Your task to perform on an android device: Add "usb-c" to the cart on target.com, then select checkout. Image 0: 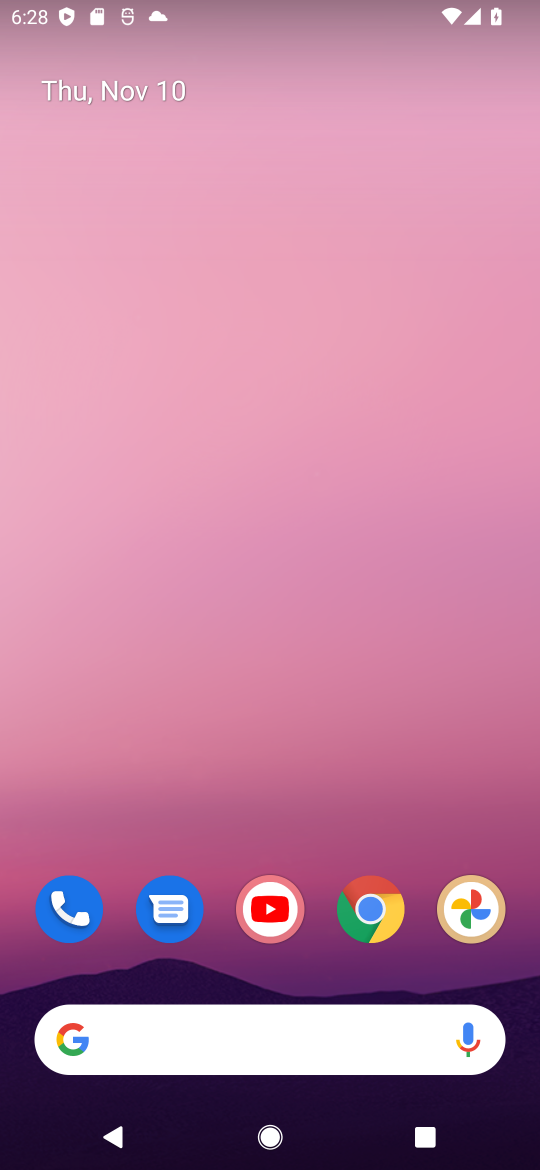
Step 0: drag from (250, 984) to (84, 14)
Your task to perform on an android device: Add "usb-c" to the cart on target.com, then select checkout. Image 1: 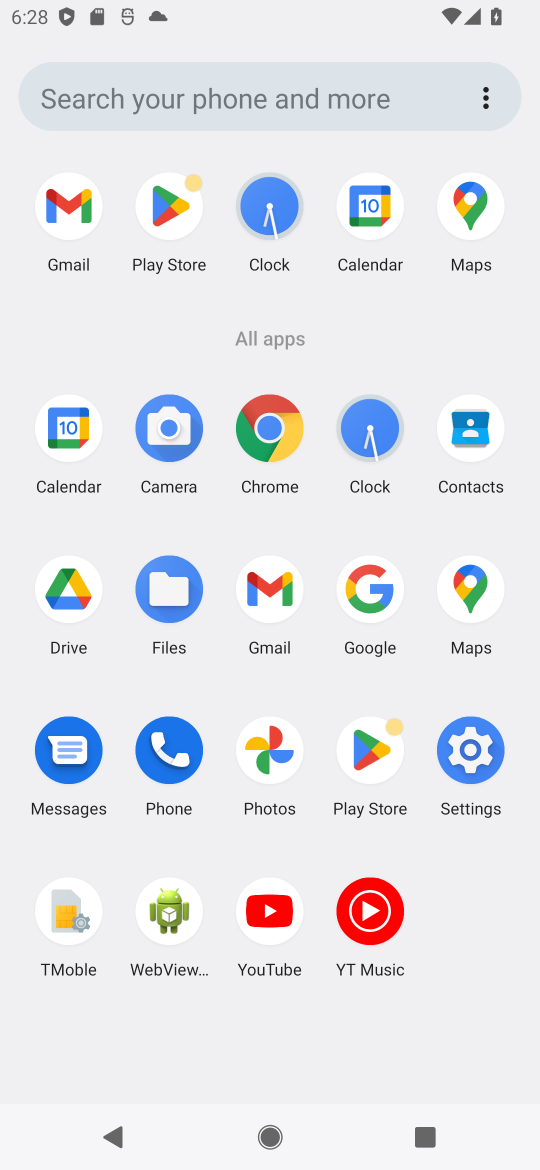
Step 1: click (385, 585)
Your task to perform on an android device: Add "usb-c" to the cart on target.com, then select checkout. Image 2: 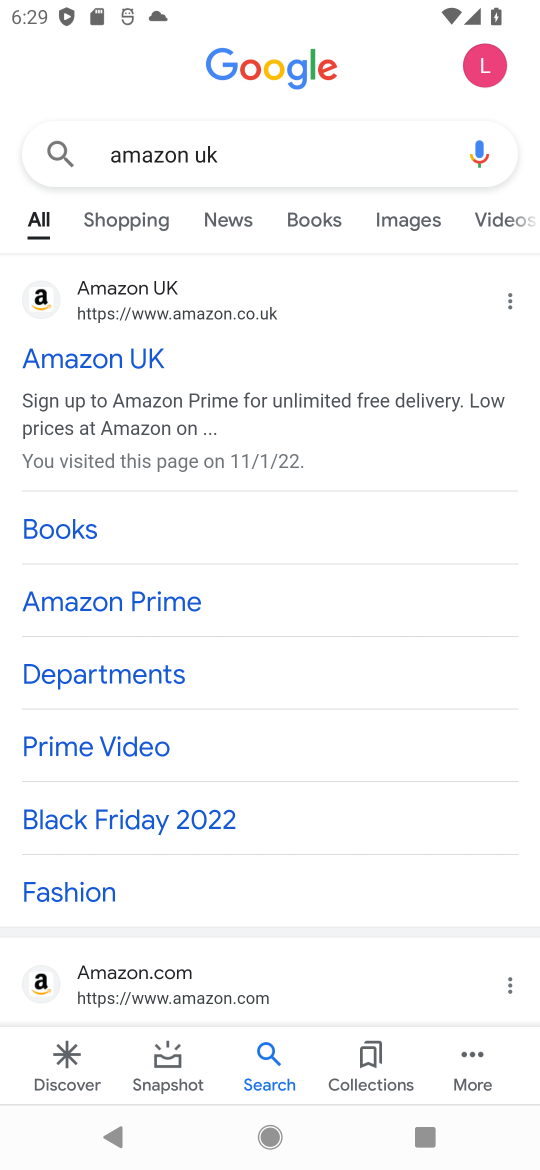
Step 2: click (318, 166)
Your task to perform on an android device: Add "usb-c" to the cart on target.com, then select checkout. Image 3: 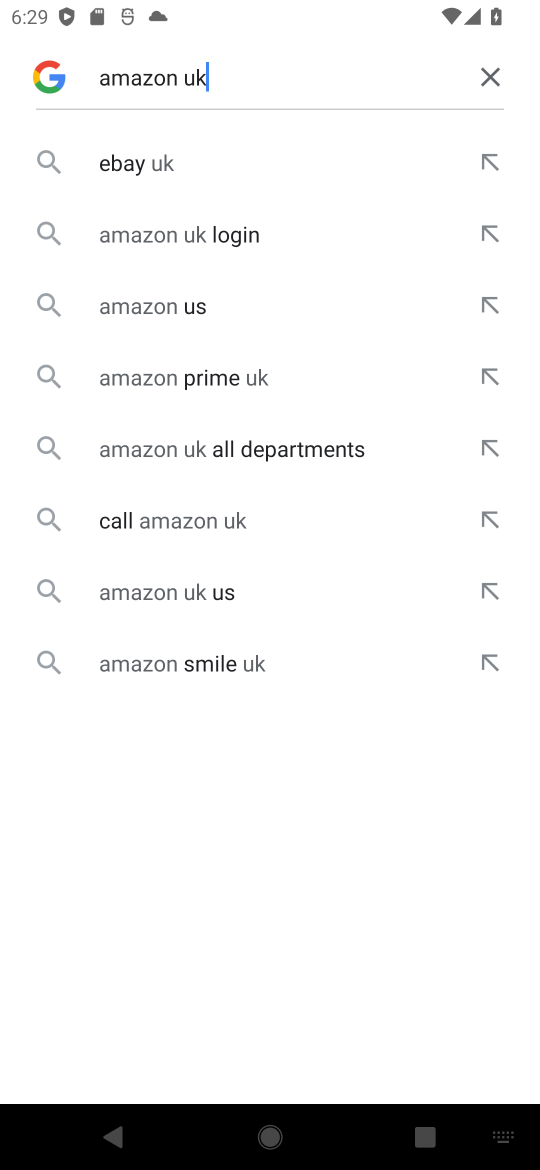
Step 3: click (483, 63)
Your task to perform on an android device: Add "usb-c" to the cart on target.com, then select checkout. Image 4: 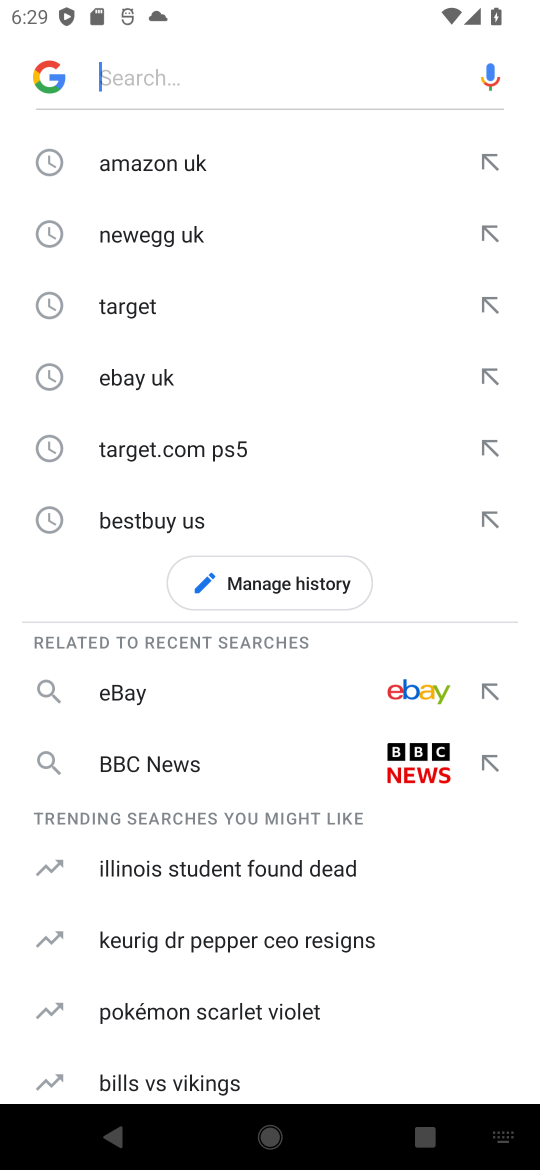
Step 4: click (216, 78)
Your task to perform on an android device: Add "usb-c" to the cart on target.com, then select checkout. Image 5: 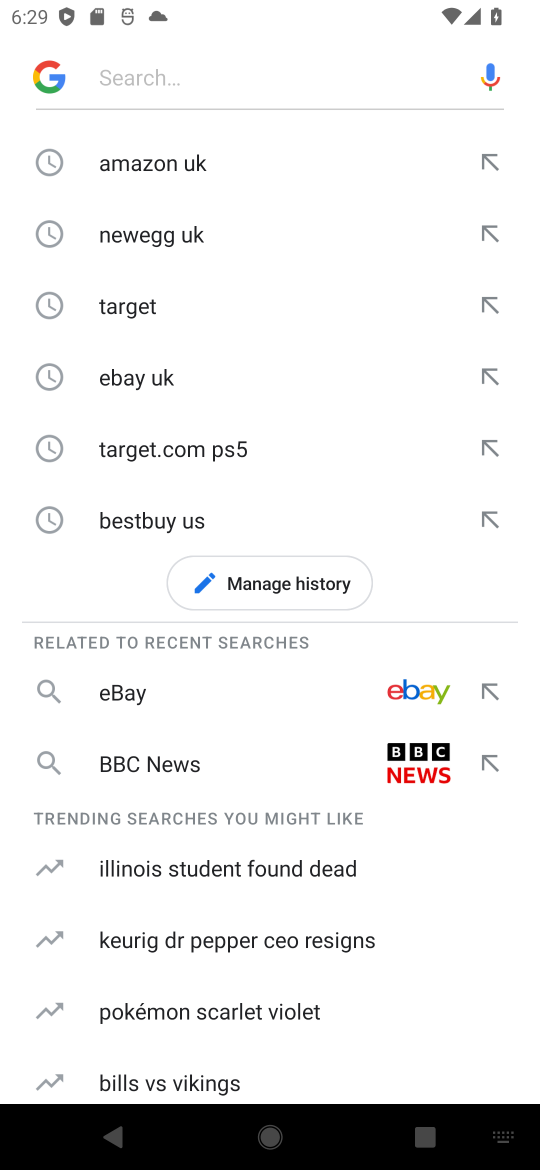
Step 5: type "target "
Your task to perform on an android device: Add "usb-c" to the cart on target.com, then select checkout. Image 6: 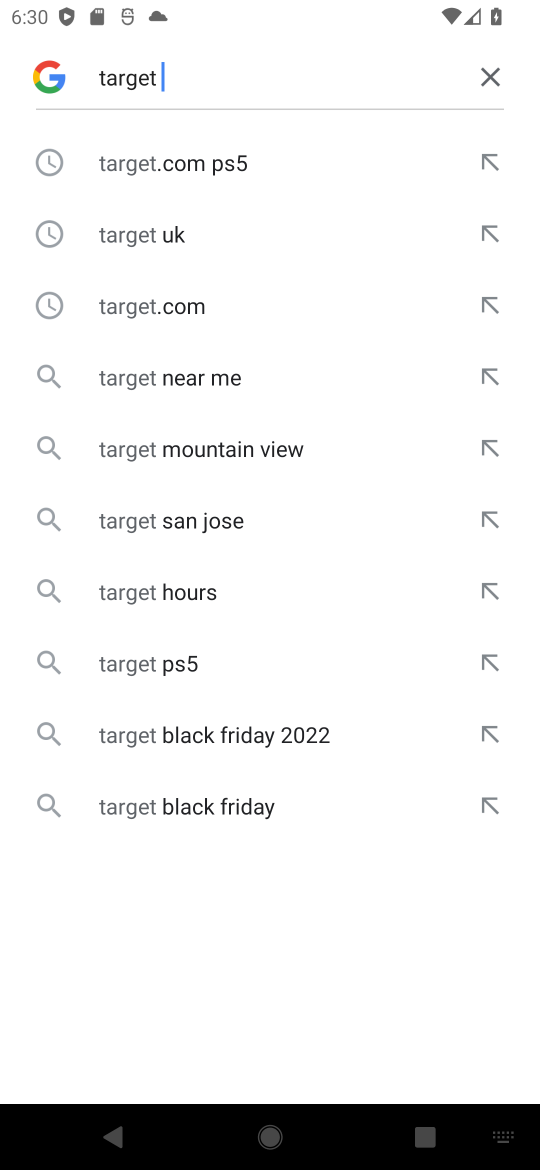
Step 6: click (146, 227)
Your task to perform on an android device: Add "usb-c" to the cart on target.com, then select checkout. Image 7: 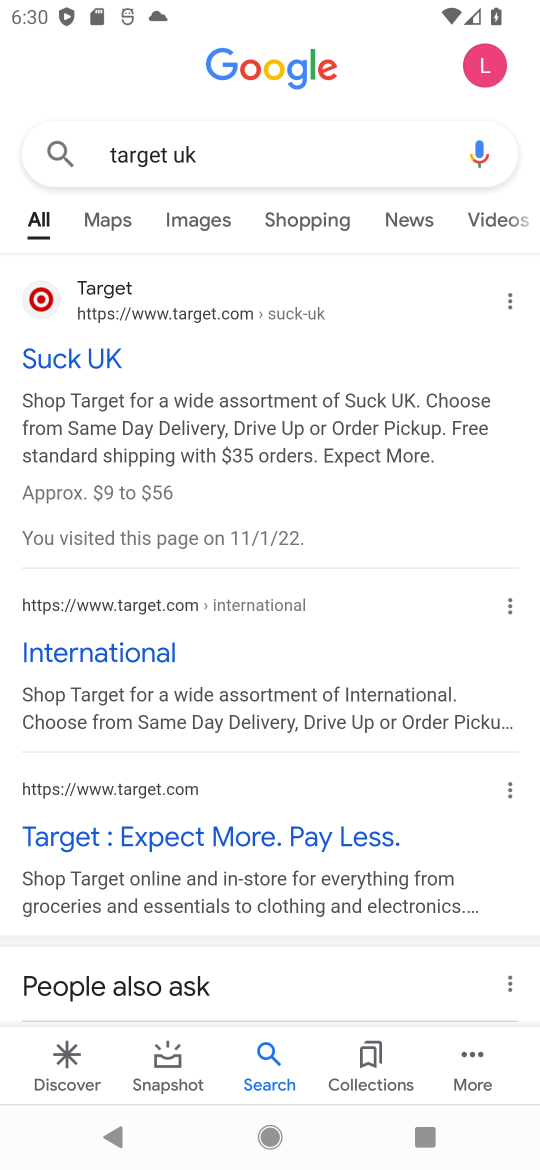
Step 7: click (39, 287)
Your task to perform on an android device: Add "usb-c" to the cart on target.com, then select checkout. Image 8: 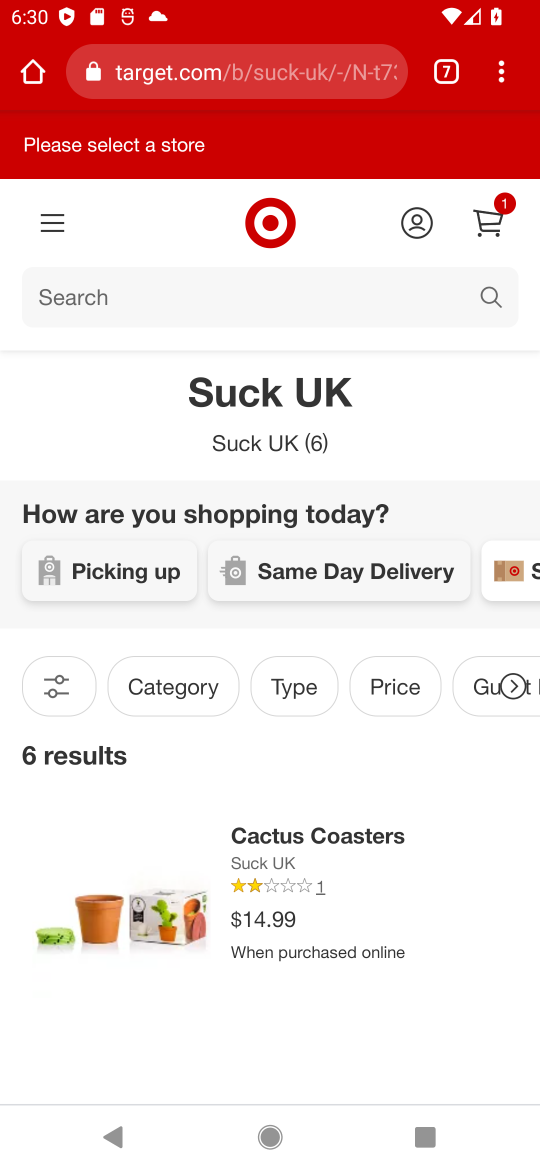
Step 8: click (133, 285)
Your task to perform on an android device: Add "usb-c" to the cart on target.com, then select checkout. Image 9: 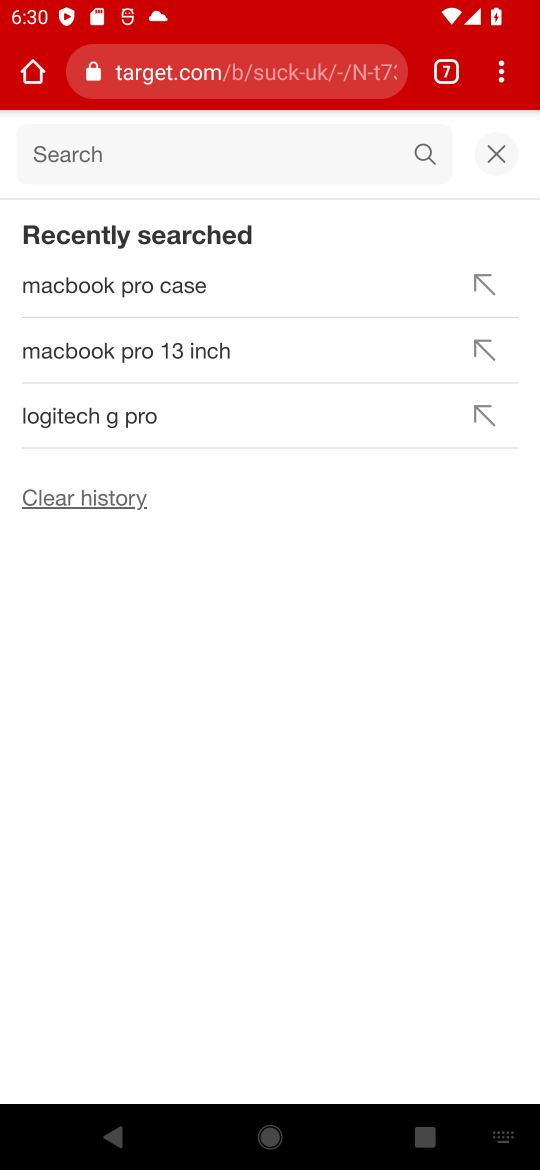
Step 9: type "usb "
Your task to perform on an android device: Add "usb-c" to the cart on target.com, then select checkout. Image 10: 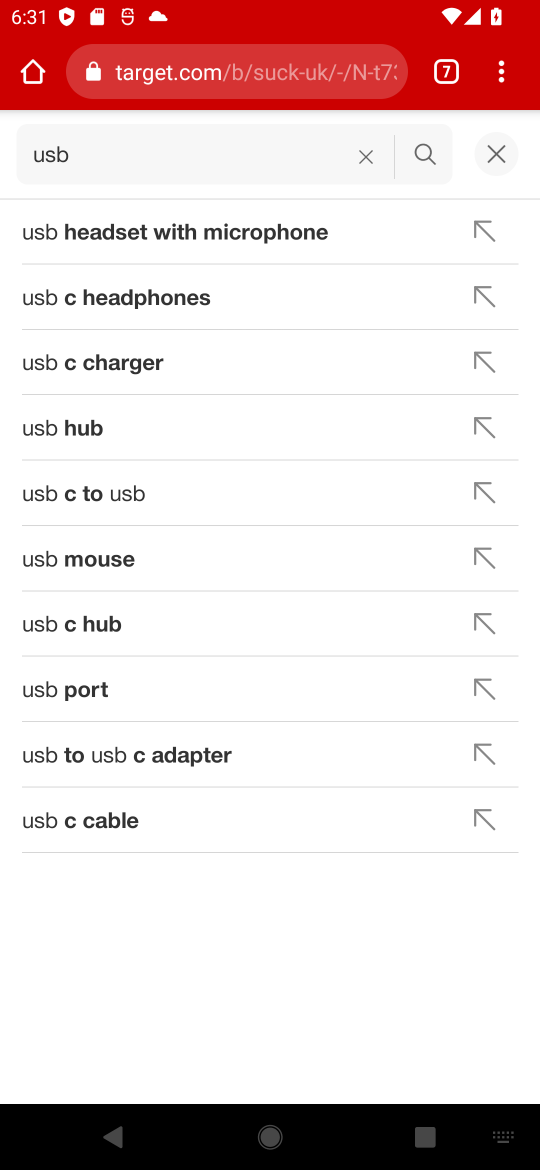
Step 10: click (420, 151)
Your task to perform on an android device: Add "usb-c" to the cart on target.com, then select checkout. Image 11: 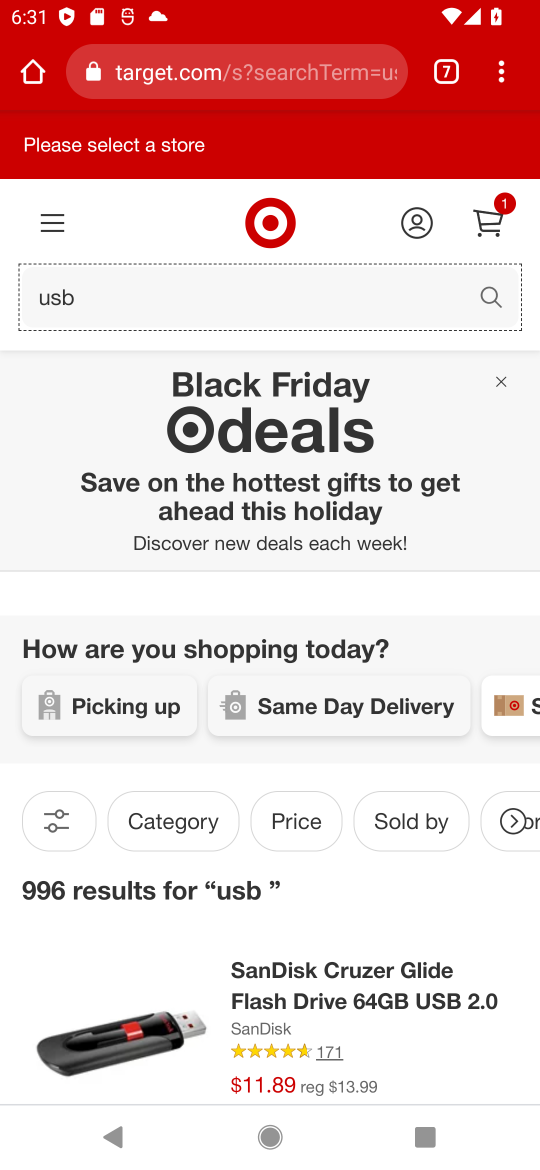
Step 11: drag from (287, 1040) to (416, 345)
Your task to perform on an android device: Add "usb-c" to the cart on target.com, then select checkout. Image 12: 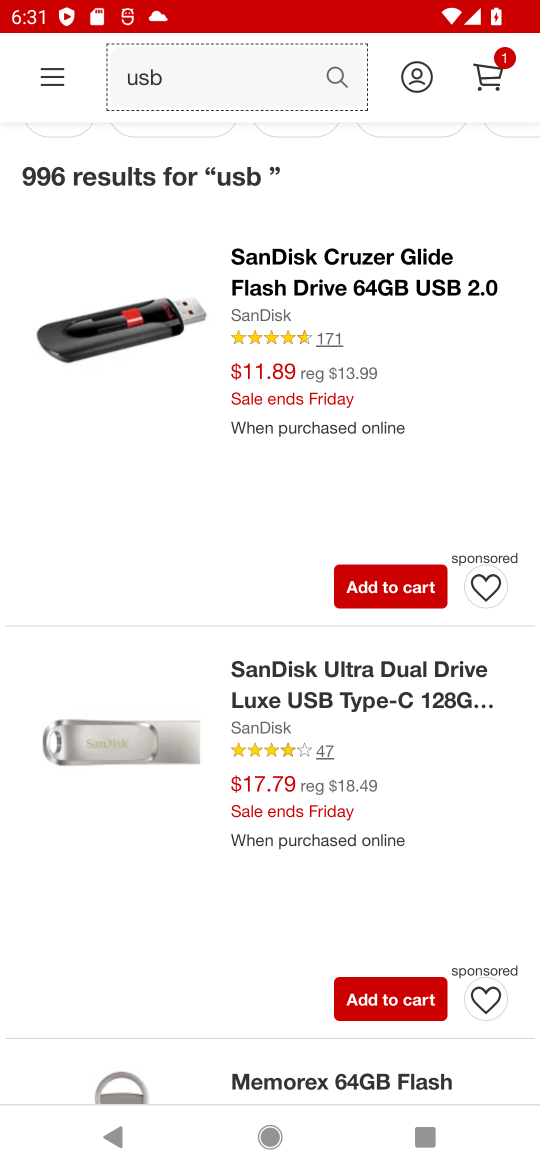
Step 12: click (376, 988)
Your task to perform on an android device: Add "usb-c" to the cart on target.com, then select checkout. Image 13: 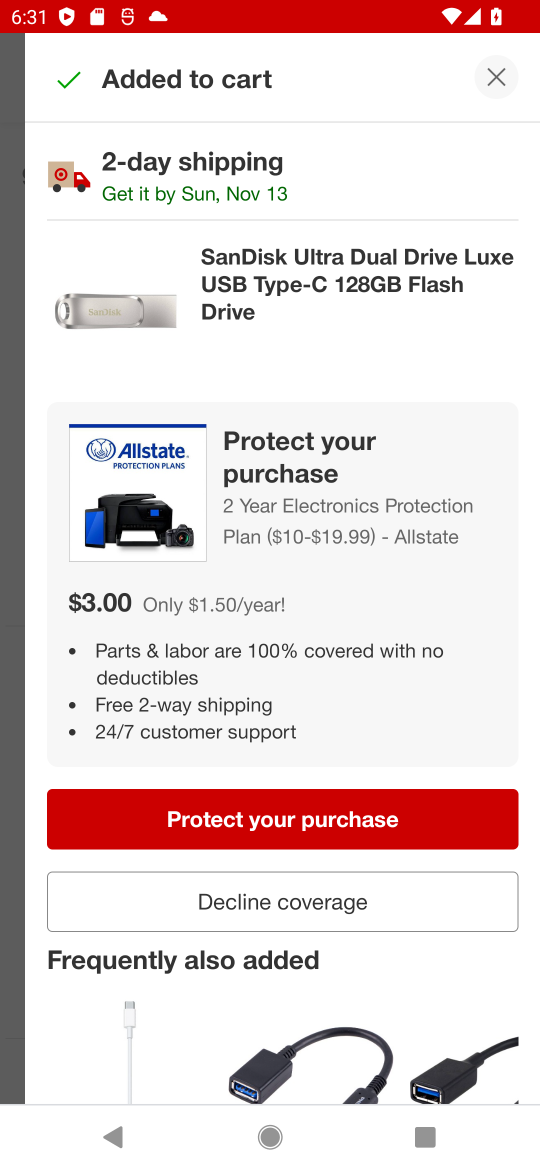
Step 13: task complete